Your task to perform on an android device: Open CNN.com Image 0: 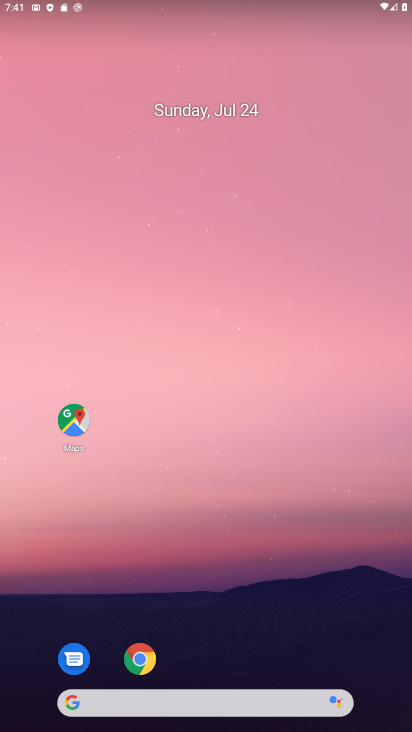
Step 0: click (143, 663)
Your task to perform on an android device: Open CNN.com Image 1: 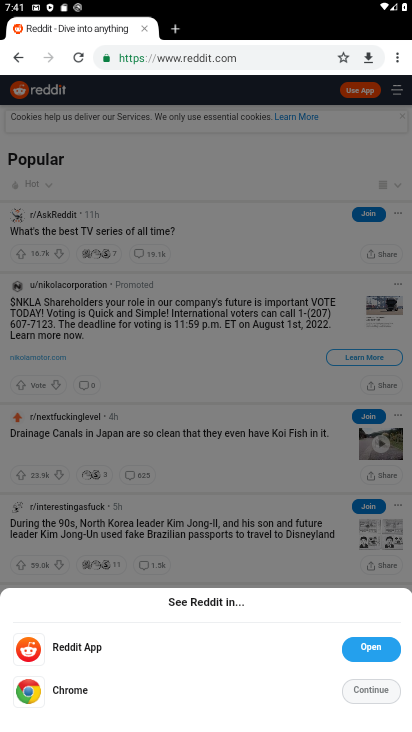
Step 1: click (17, 60)
Your task to perform on an android device: Open CNN.com Image 2: 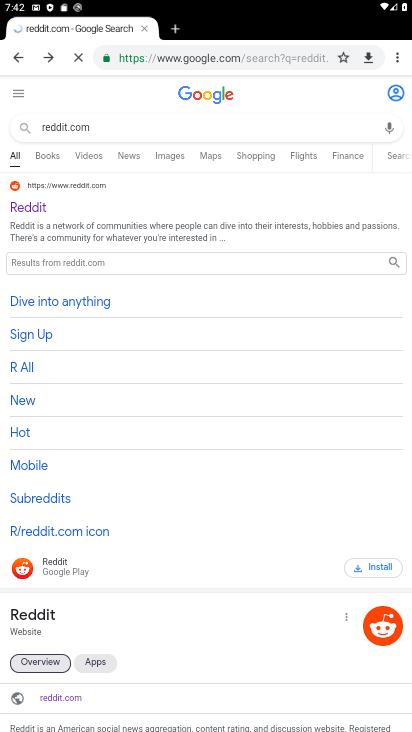
Step 2: click (17, 57)
Your task to perform on an android device: Open CNN.com Image 3: 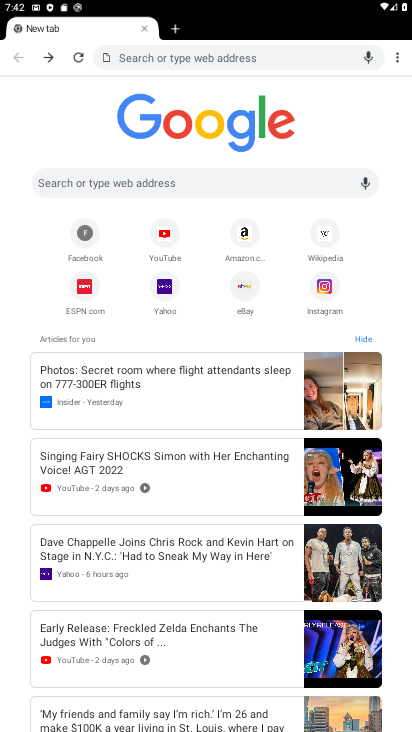
Step 3: click (137, 53)
Your task to perform on an android device: Open CNN.com Image 4: 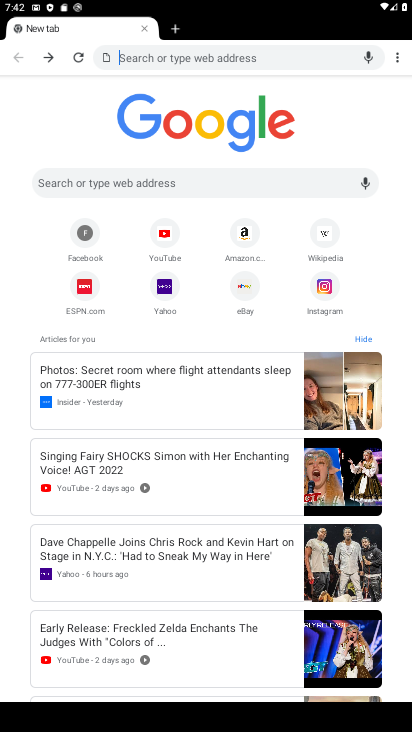
Step 4: click (164, 54)
Your task to perform on an android device: Open CNN.com Image 5: 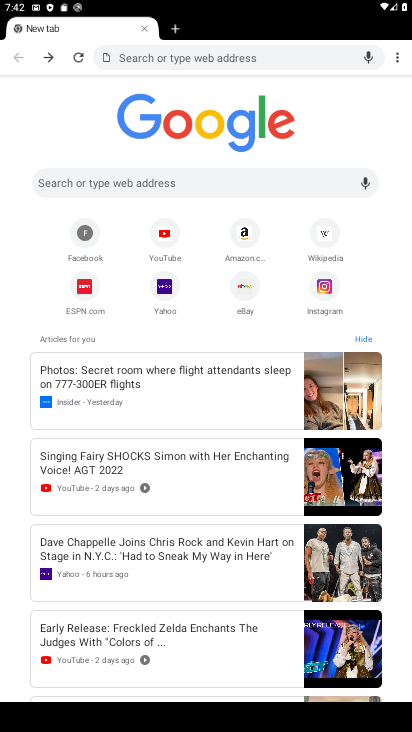
Step 5: type "cnn.com"
Your task to perform on an android device: Open CNN.com Image 6: 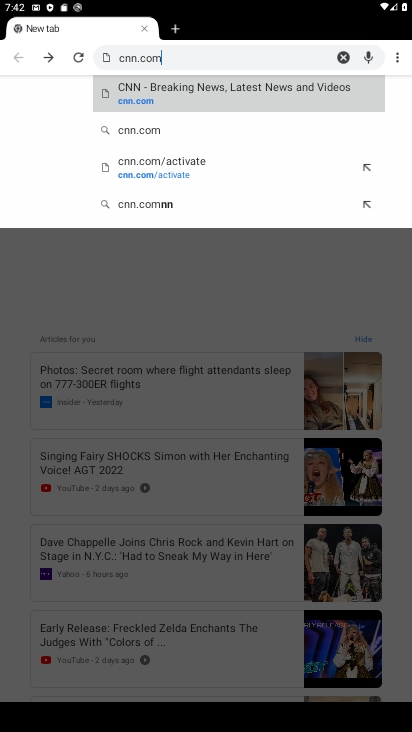
Step 6: click (134, 130)
Your task to perform on an android device: Open CNN.com Image 7: 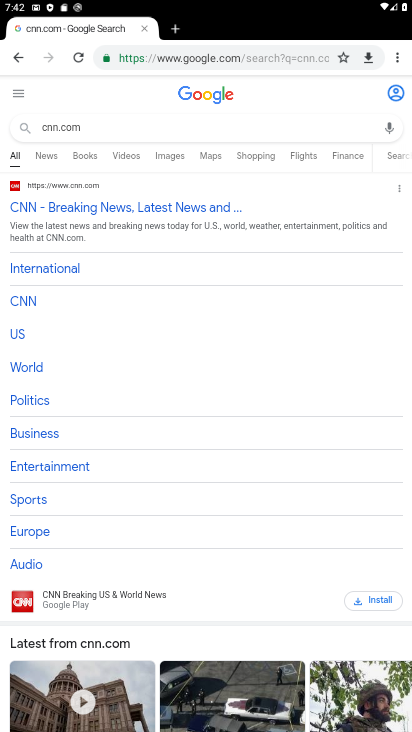
Step 7: click (43, 213)
Your task to perform on an android device: Open CNN.com Image 8: 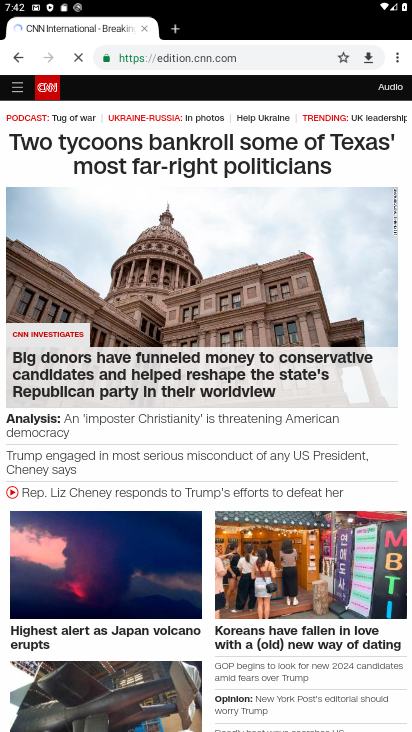
Step 8: task complete